Your task to perform on an android device: turn off airplane mode Image 0: 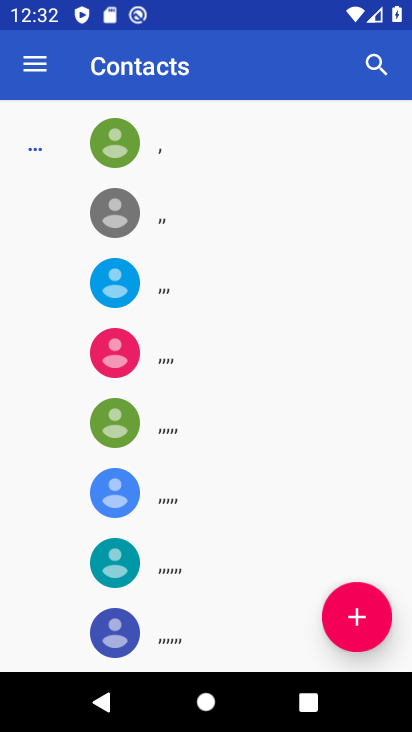
Step 0: press home button
Your task to perform on an android device: turn off airplane mode Image 1: 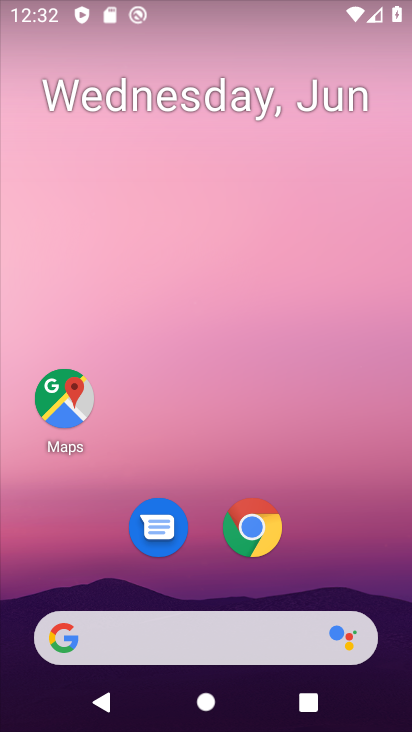
Step 1: drag from (200, 605) to (233, 117)
Your task to perform on an android device: turn off airplane mode Image 2: 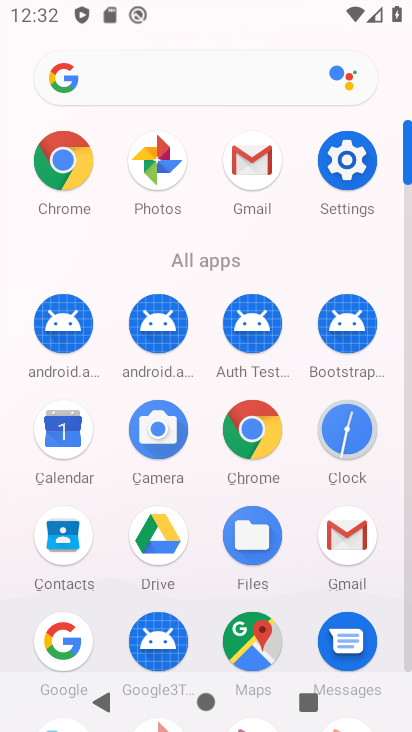
Step 2: click (350, 153)
Your task to perform on an android device: turn off airplane mode Image 3: 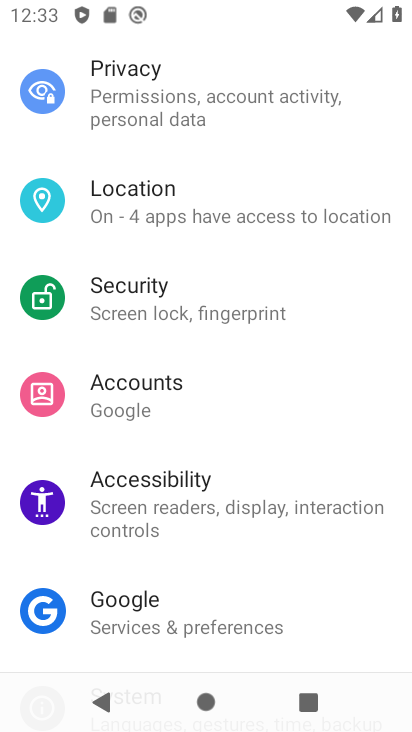
Step 3: drag from (161, 105) to (246, 718)
Your task to perform on an android device: turn off airplane mode Image 4: 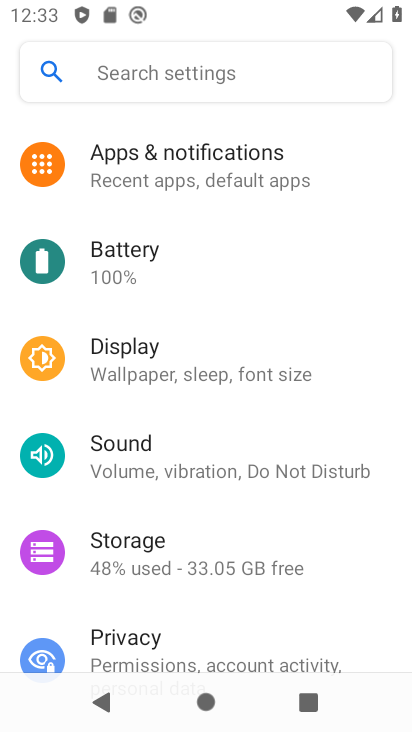
Step 4: drag from (264, 378) to (149, 691)
Your task to perform on an android device: turn off airplane mode Image 5: 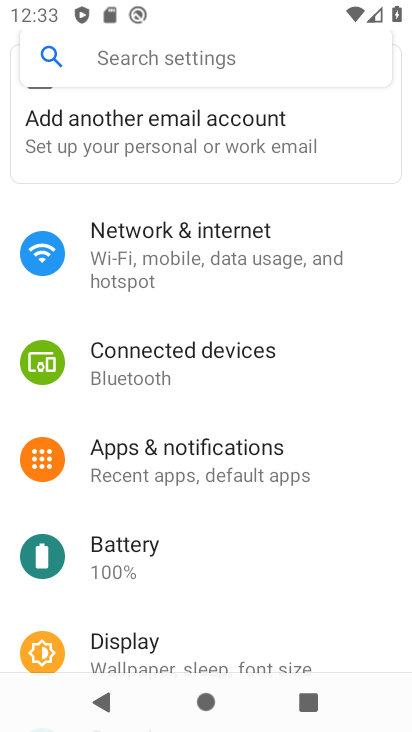
Step 5: click (123, 272)
Your task to perform on an android device: turn off airplane mode Image 6: 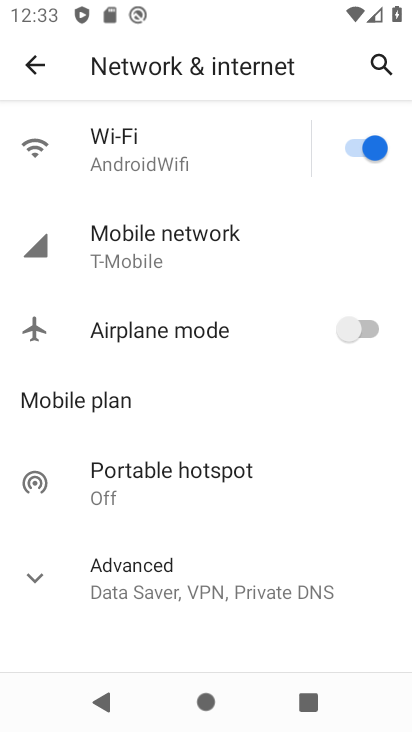
Step 6: task complete